Your task to perform on an android device: Open Google Maps and go to "Timeline" Image 0: 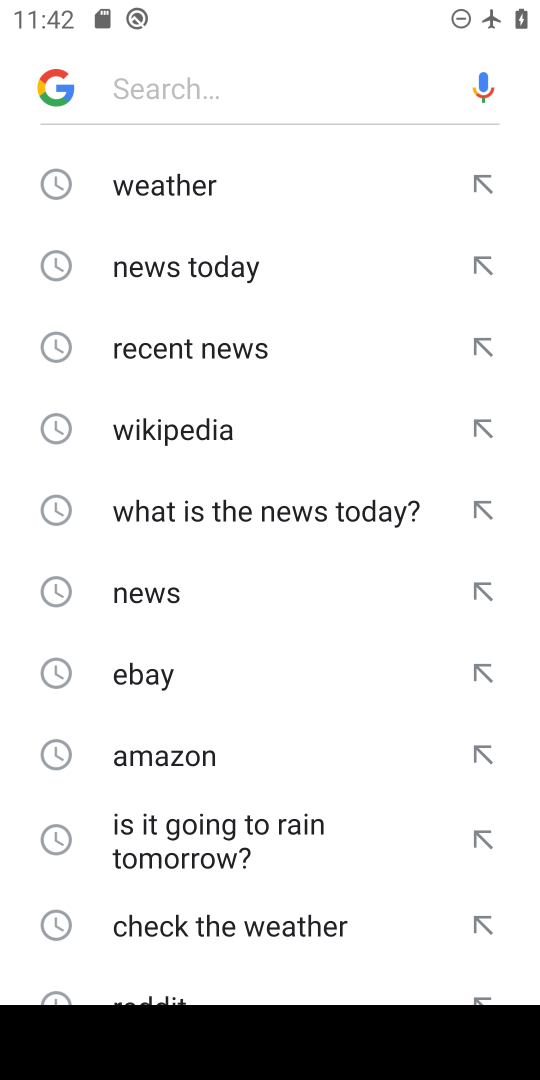
Step 0: press home button
Your task to perform on an android device: Open Google Maps and go to "Timeline" Image 1: 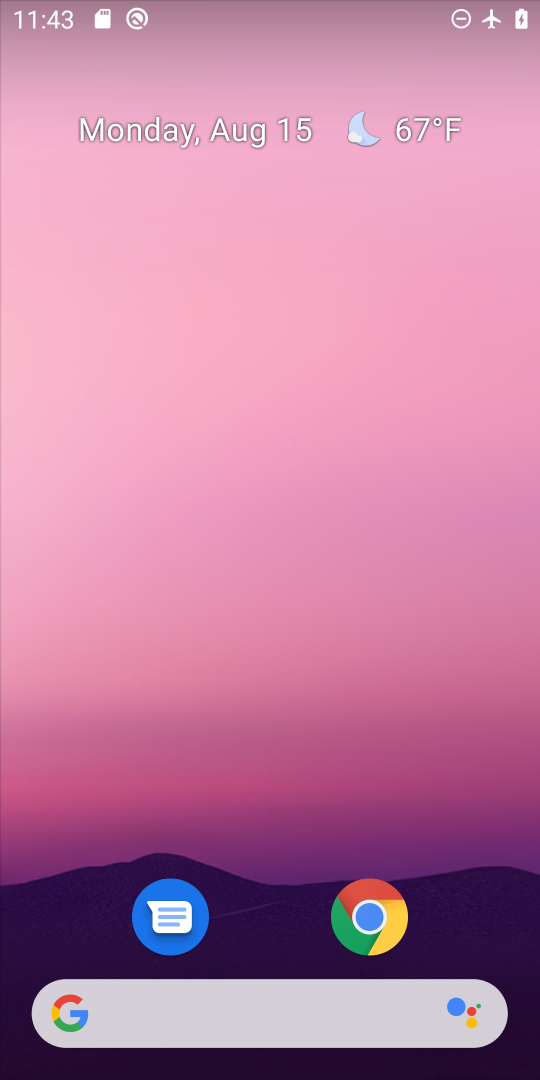
Step 1: drag from (267, 793) to (263, 6)
Your task to perform on an android device: Open Google Maps and go to "Timeline" Image 2: 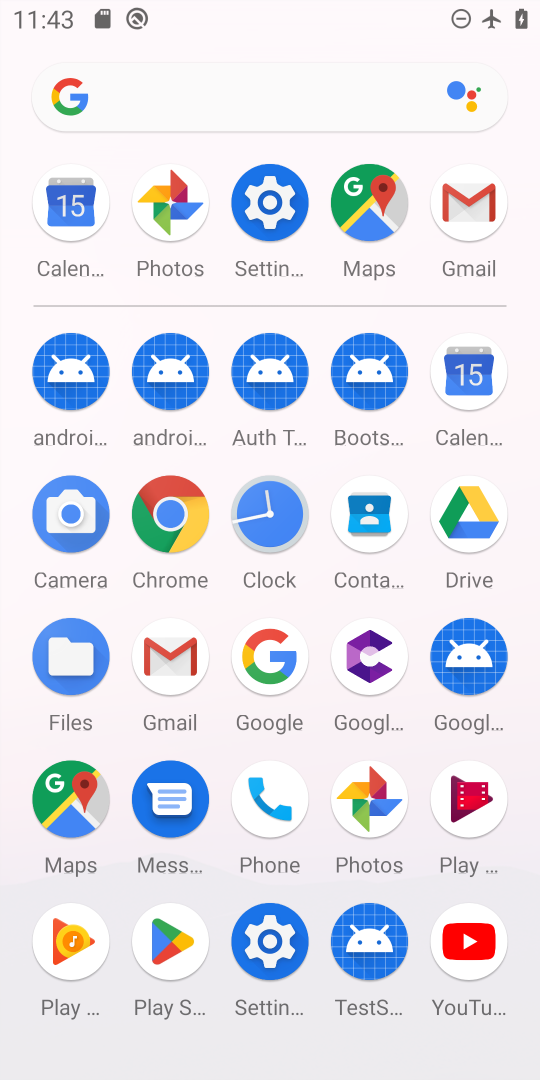
Step 2: click (82, 792)
Your task to perform on an android device: Open Google Maps and go to "Timeline" Image 3: 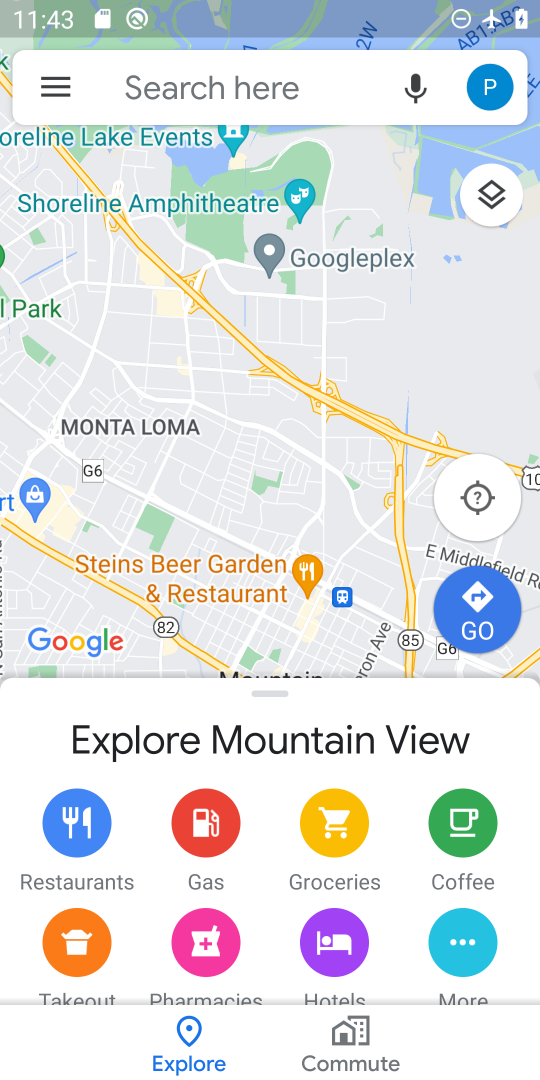
Step 3: click (57, 87)
Your task to perform on an android device: Open Google Maps and go to "Timeline" Image 4: 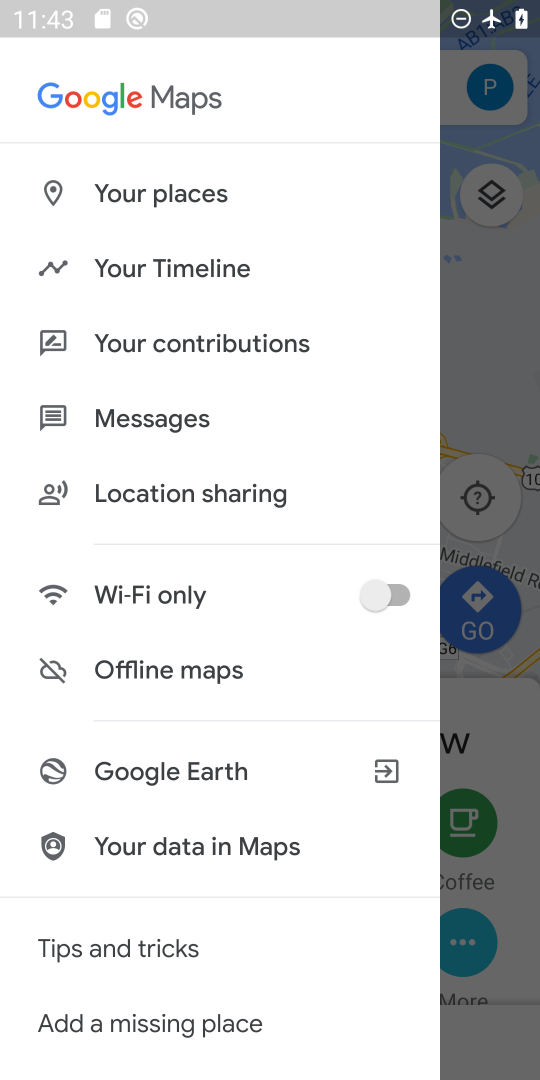
Step 4: click (147, 257)
Your task to perform on an android device: Open Google Maps and go to "Timeline" Image 5: 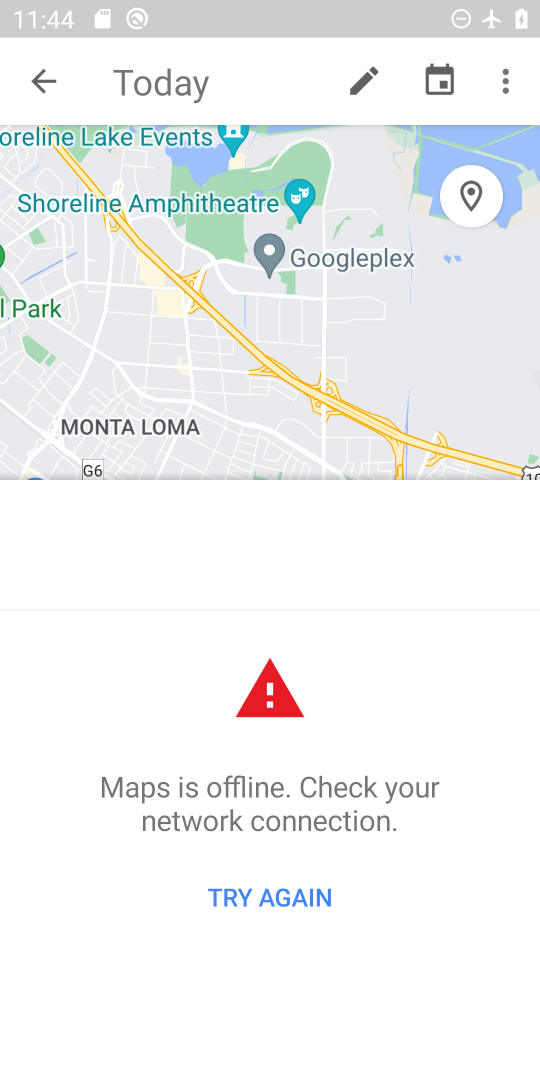
Step 5: task complete